Your task to perform on an android device: Open maps Image 0: 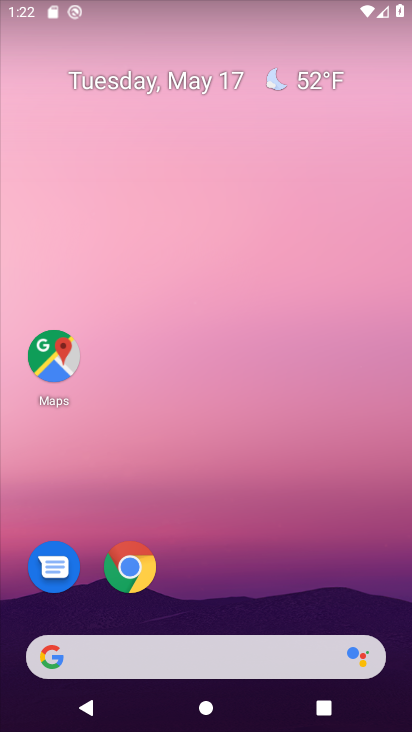
Step 0: click (136, 560)
Your task to perform on an android device: Open maps Image 1: 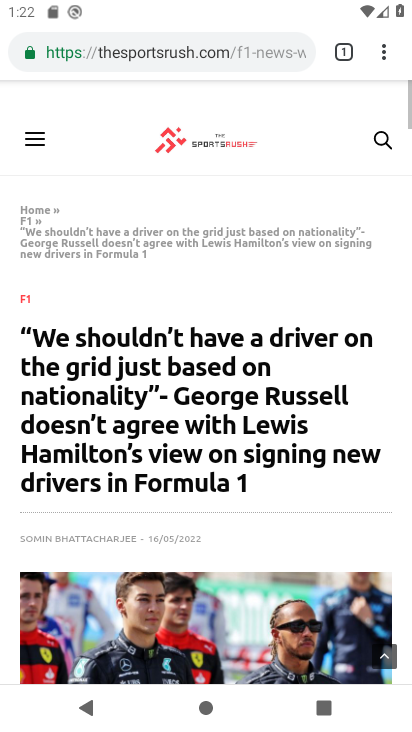
Step 1: press home button
Your task to perform on an android device: Open maps Image 2: 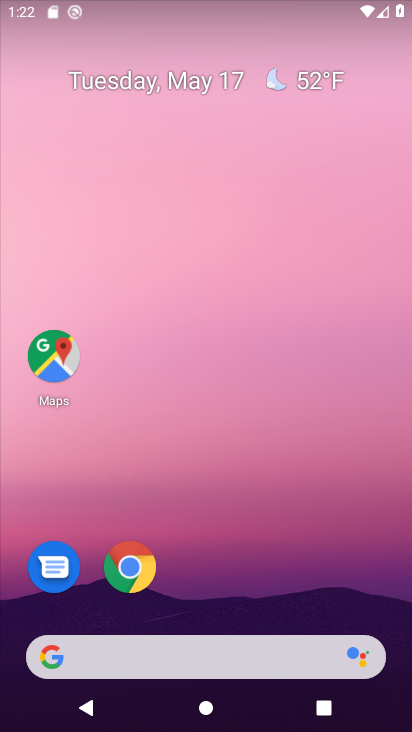
Step 2: click (40, 367)
Your task to perform on an android device: Open maps Image 3: 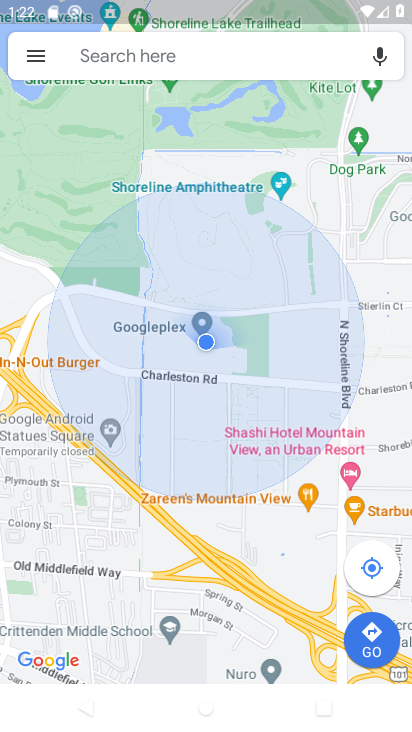
Step 3: task complete